Your task to perform on an android device: open wifi settings Image 0: 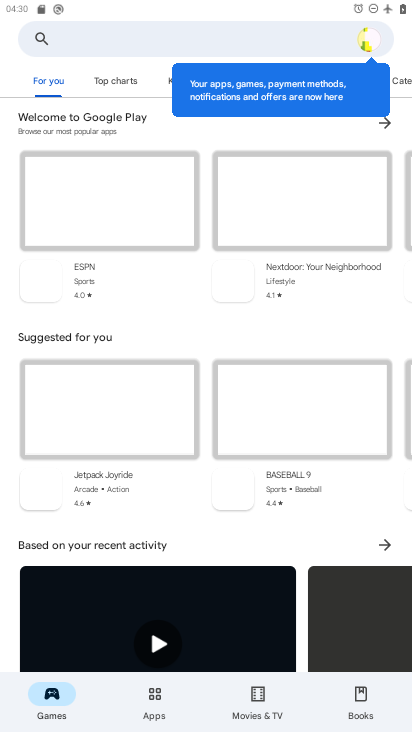
Step 0: press home button
Your task to perform on an android device: open wifi settings Image 1: 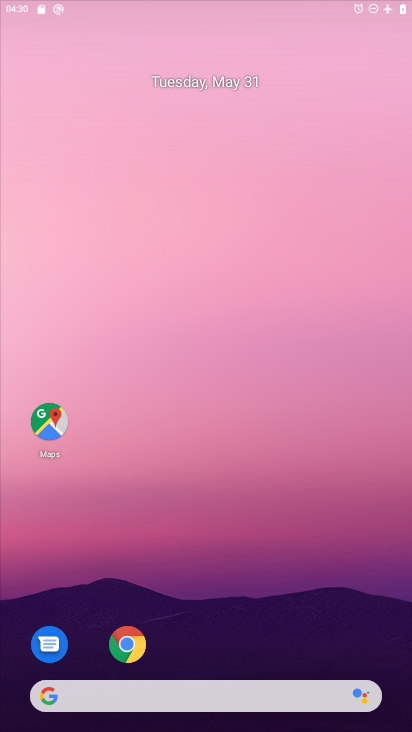
Step 1: drag from (308, 567) to (288, 62)
Your task to perform on an android device: open wifi settings Image 2: 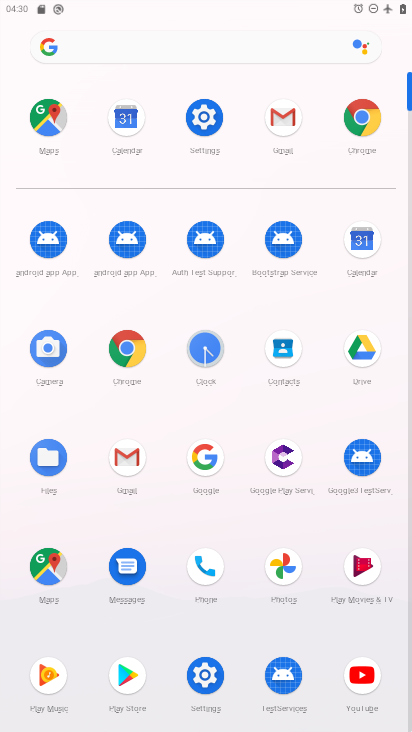
Step 2: click (199, 122)
Your task to perform on an android device: open wifi settings Image 3: 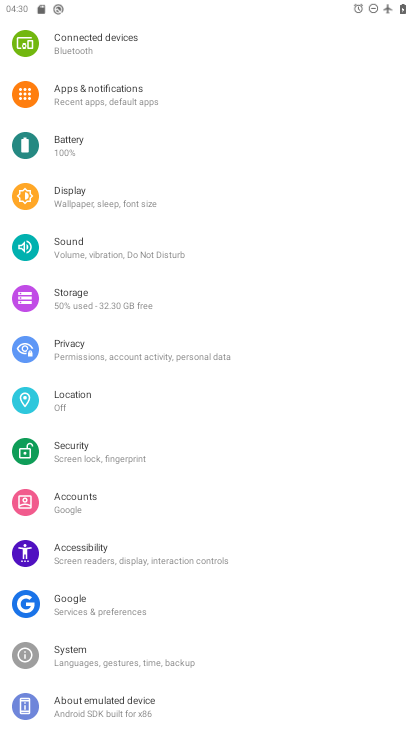
Step 3: drag from (196, 118) to (259, 580)
Your task to perform on an android device: open wifi settings Image 4: 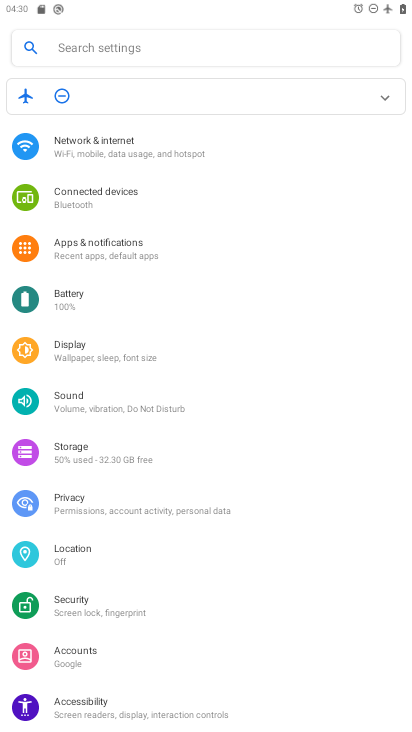
Step 4: click (119, 124)
Your task to perform on an android device: open wifi settings Image 5: 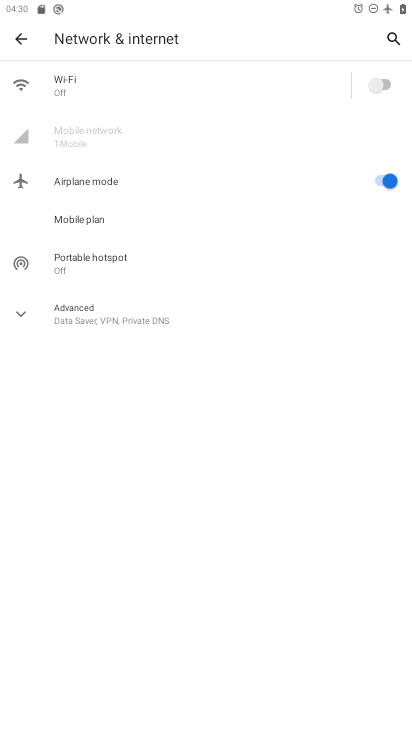
Step 5: click (183, 84)
Your task to perform on an android device: open wifi settings Image 6: 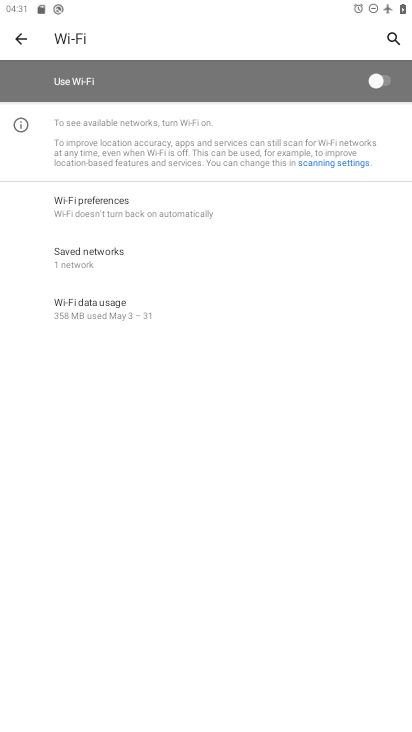
Step 6: task complete